Your task to perform on an android device: Open the map Image 0: 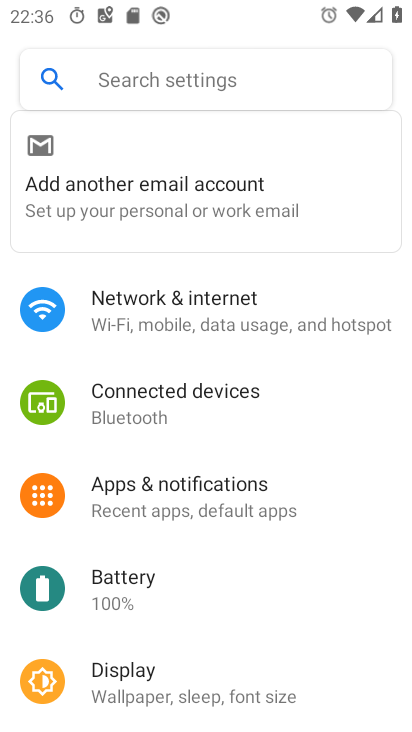
Step 0: press home button
Your task to perform on an android device: Open the map Image 1: 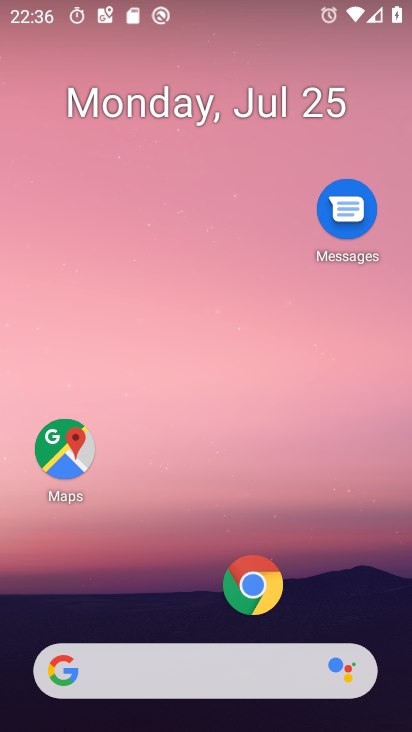
Step 1: click (69, 466)
Your task to perform on an android device: Open the map Image 2: 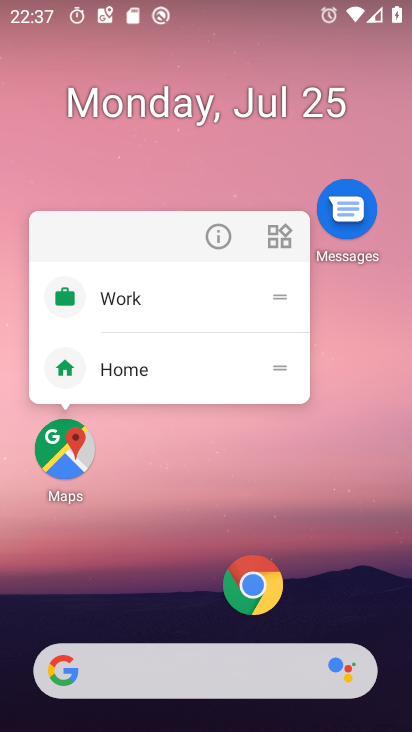
Step 2: click (48, 476)
Your task to perform on an android device: Open the map Image 3: 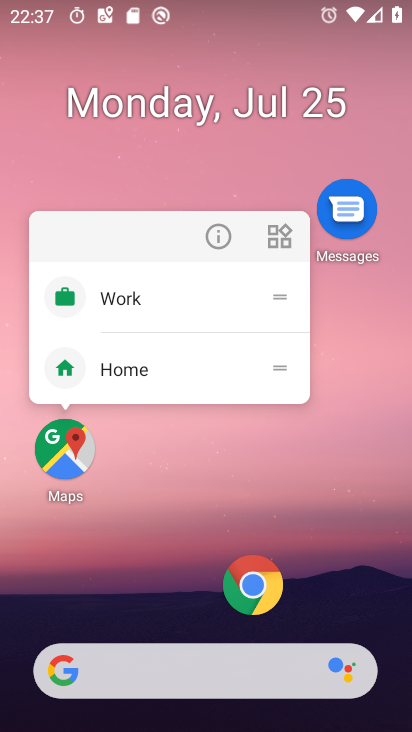
Step 3: click (67, 458)
Your task to perform on an android device: Open the map Image 4: 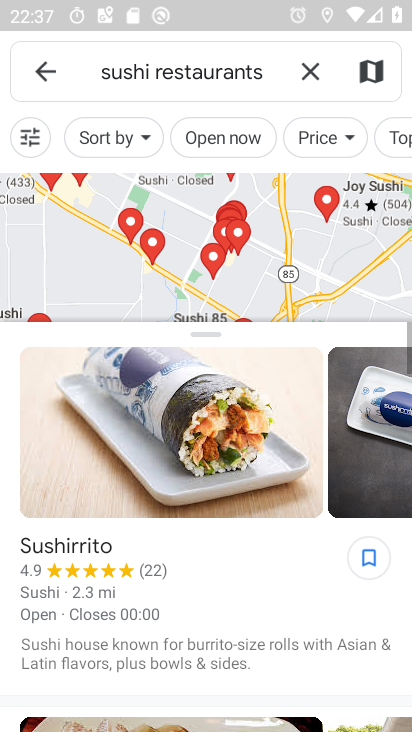
Step 4: click (303, 71)
Your task to perform on an android device: Open the map Image 5: 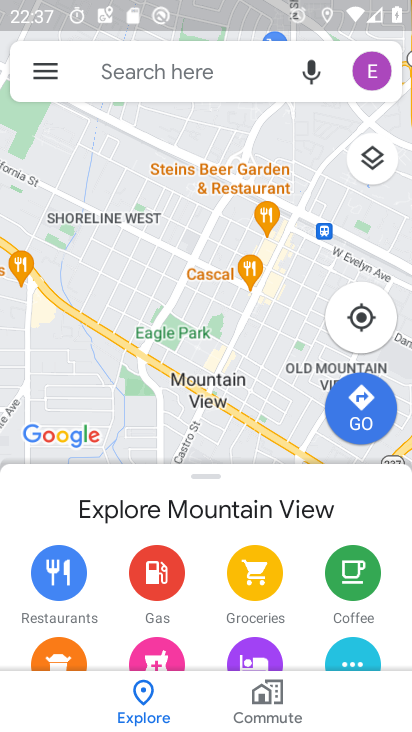
Step 5: task complete